Your task to perform on an android device: What's the weather going to be tomorrow? Image 0: 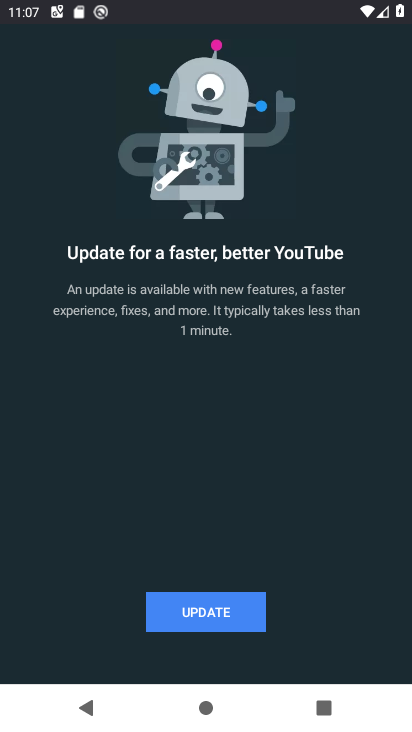
Step 0: press home button
Your task to perform on an android device: What's the weather going to be tomorrow? Image 1: 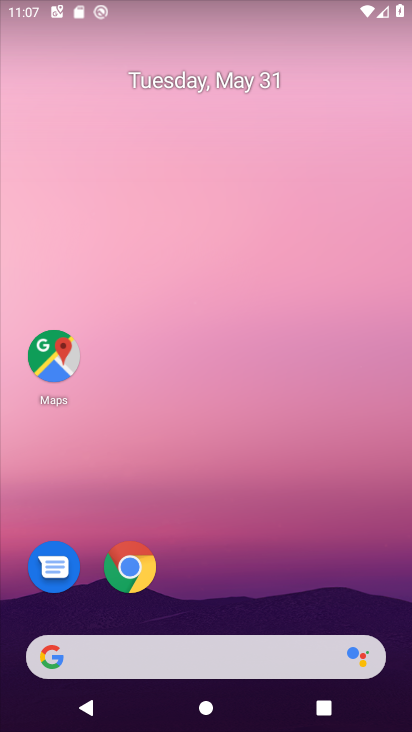
Step 1: click (277, 659)
Your task to perform on an android device: What's the weather going to be tomorrow? Image 2: 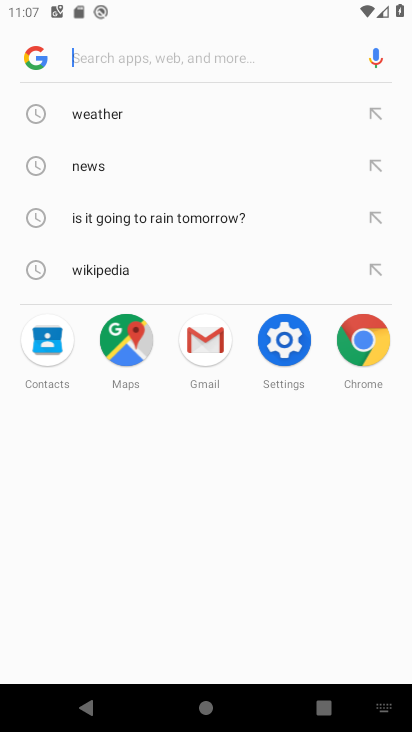
Step 2: click (81, 124)
Your task to perform on an android device: What's the weather going to be tomorrow? Image 3: 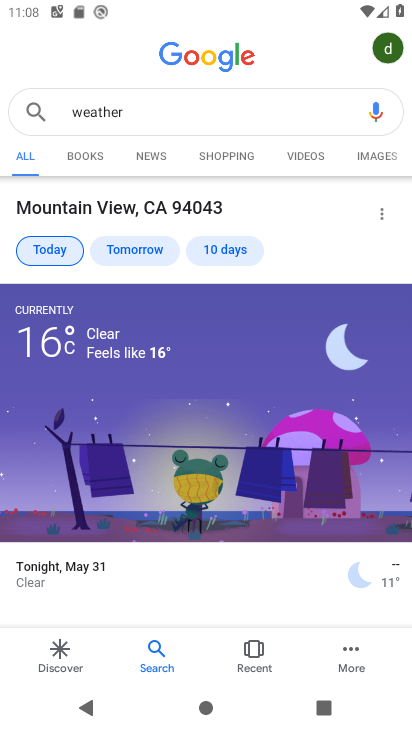
Step 3: task complete